Your task to perform on an android device: turn on notifications settings in the gmail app Image 0: 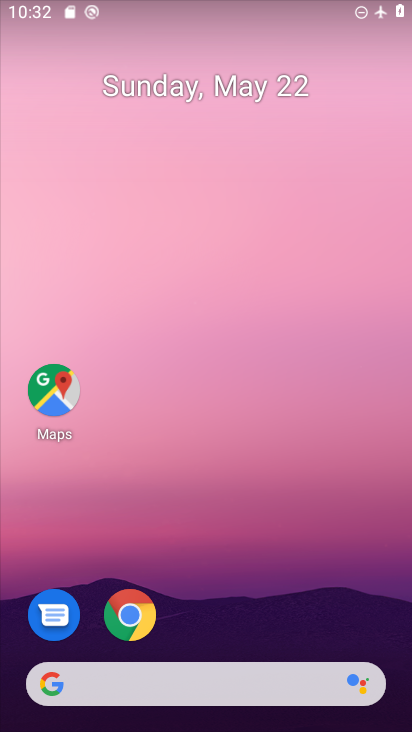
Step 0: drag from (264, 626) to (201, 95)
Your task to perform on an android device: turn on notifications settings in the gmail app Image 1: 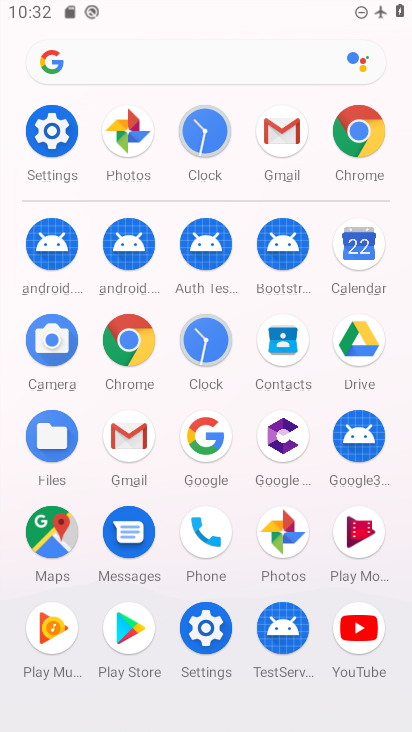
Step 1: click (287, 124)
Your task to perform on an android device: turn on notifications settings in the gmail app Image 2: 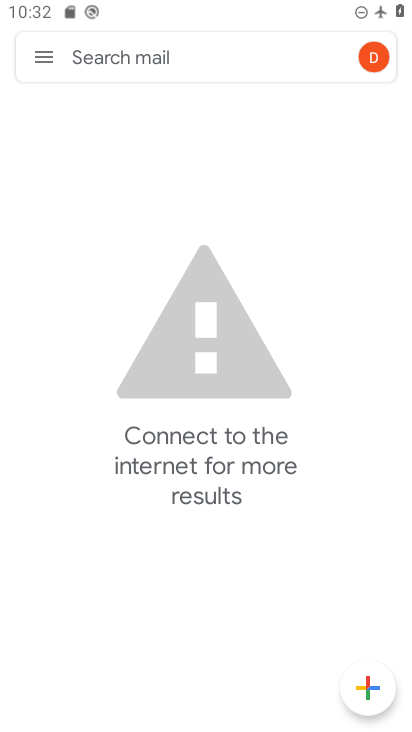
Step 2: click (43, 47)
Your task to perform on an android device: turn on notifications settings in the gmail app Image 3: 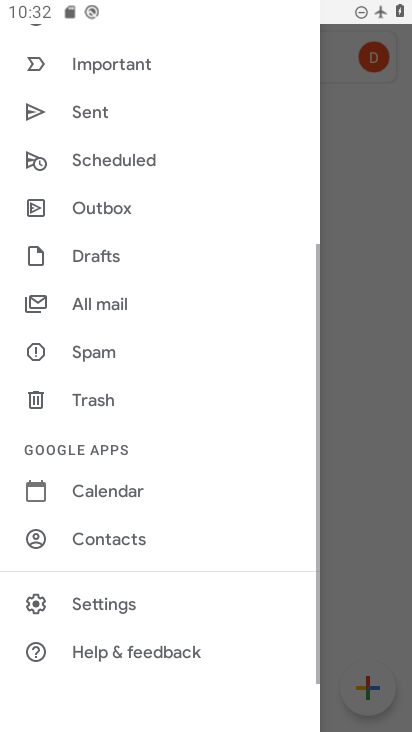
Step 3: click (110, 608)
Your task to perform on an android device: turn on notifications settings in the gmail app Image 4: 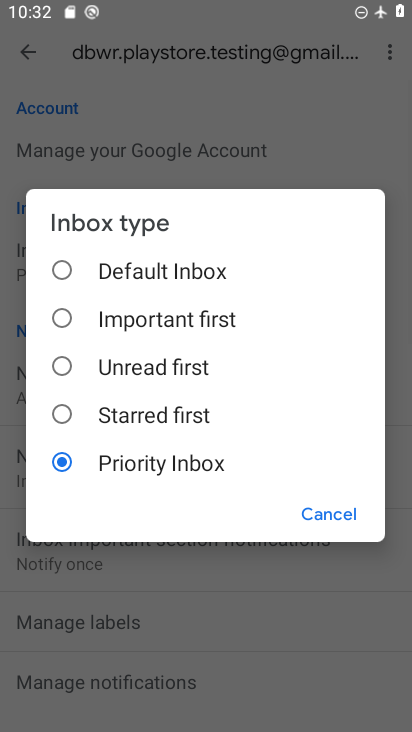
Step 4: click (324, 510)
Your task to perform on an android device: turn on notifications settings in the gmail app Image 5: 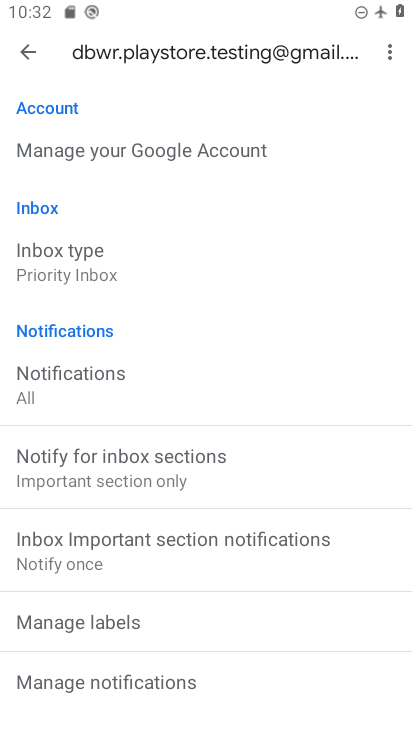
Step 5: click (136, 677)
Your task to perform on an android device: turn on notifications settings in the gmail app Image 6: 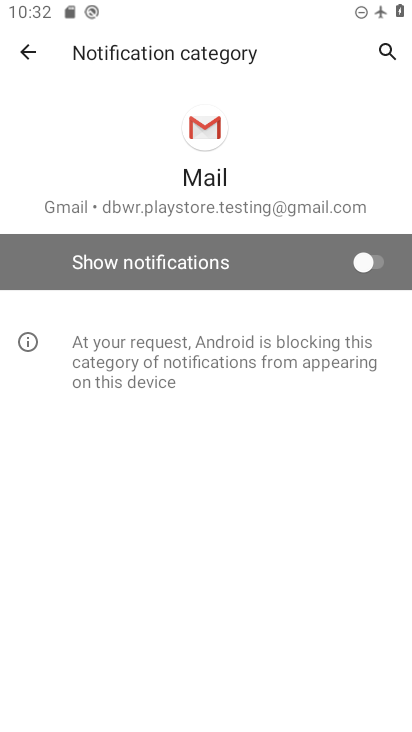
Step 6: click (358, 244)
Your task to perform on an android device: turn on notifications settings in the gmail app Image 7: 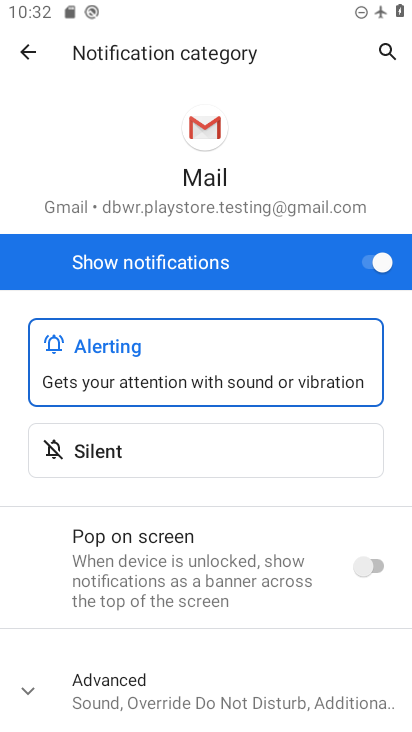
Step 7: task complete